Your task to perform on an android device: Go to sound settings Image 0: 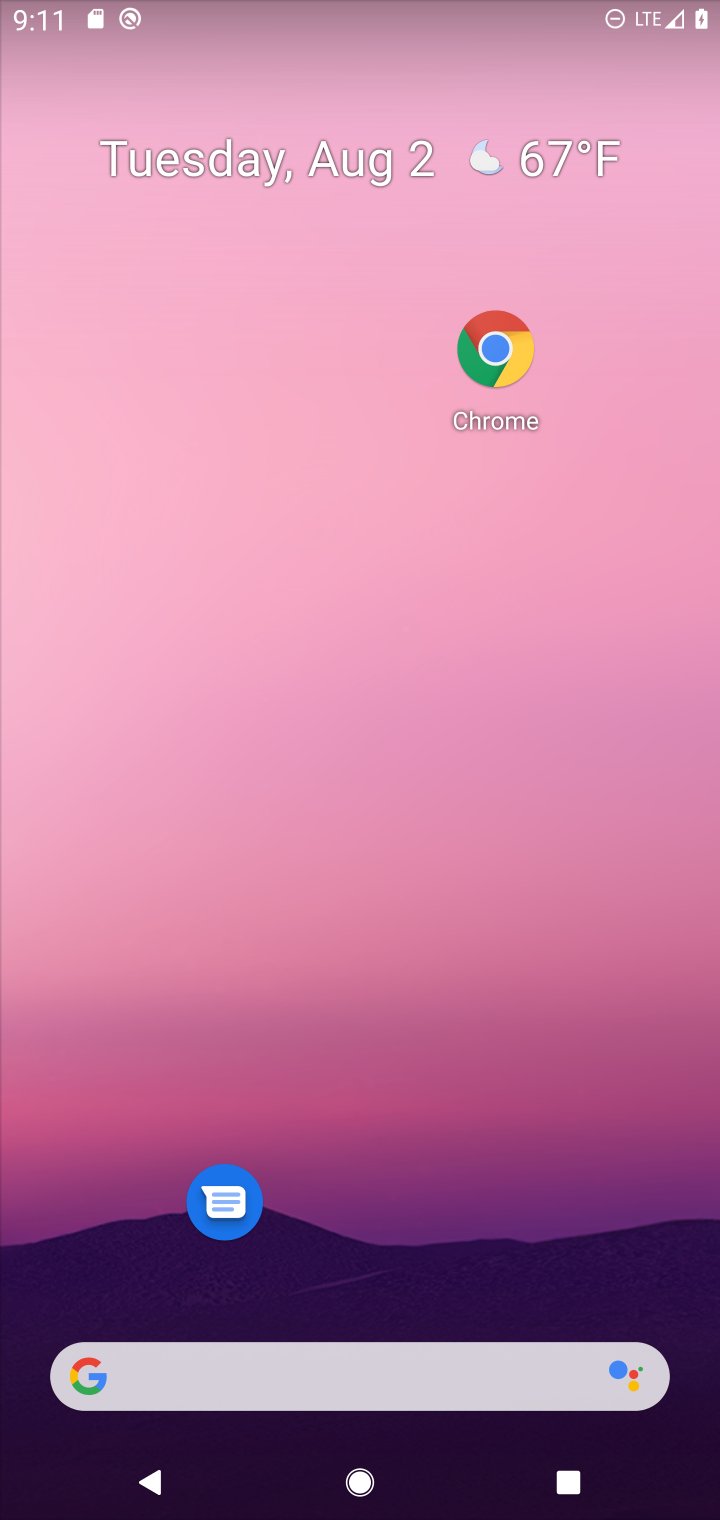
Step 0: drag from (371, 1303) to (390, 105)
Your task to perform on an android device: Go to sound settings Image 1: 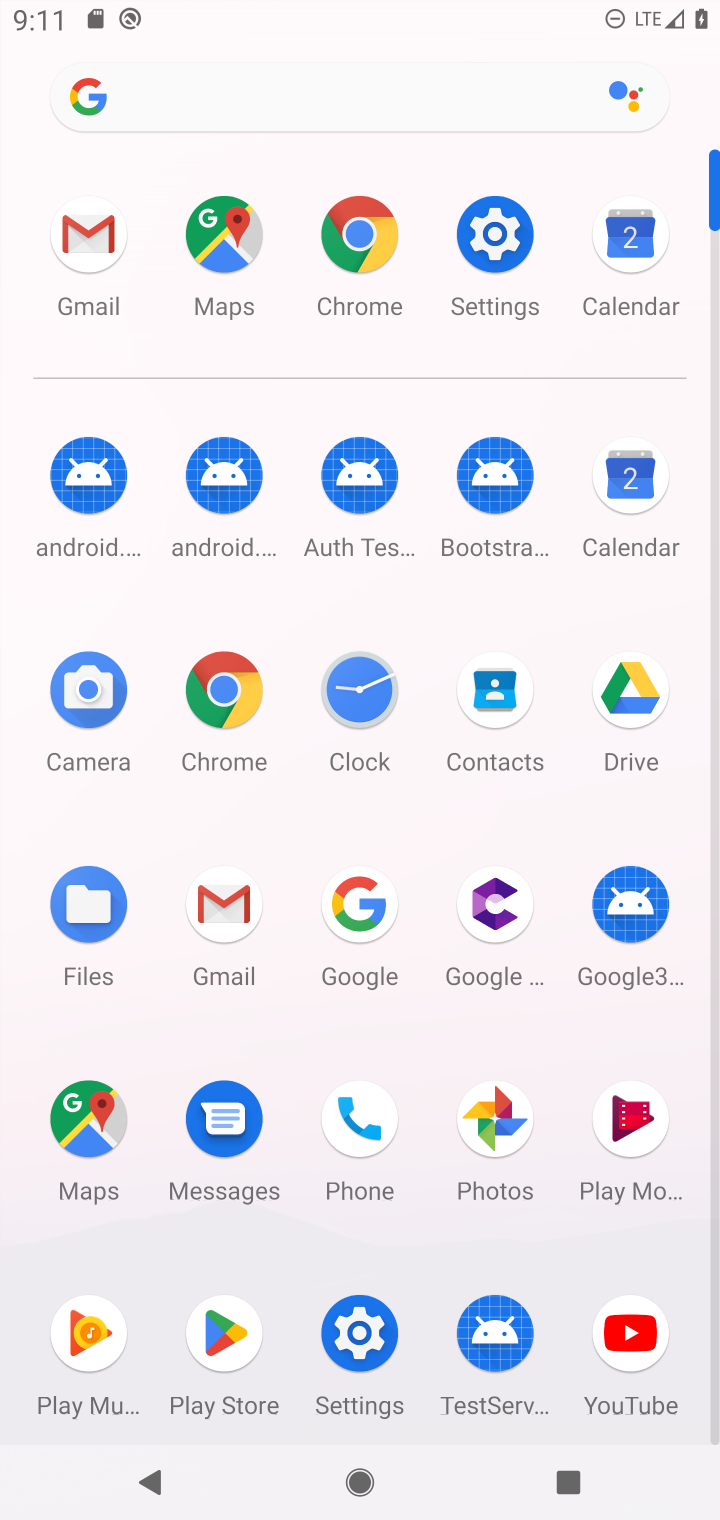
Step 1: click (490, 245)
Your task to perform on an android device: Go to sound settings Image 2: 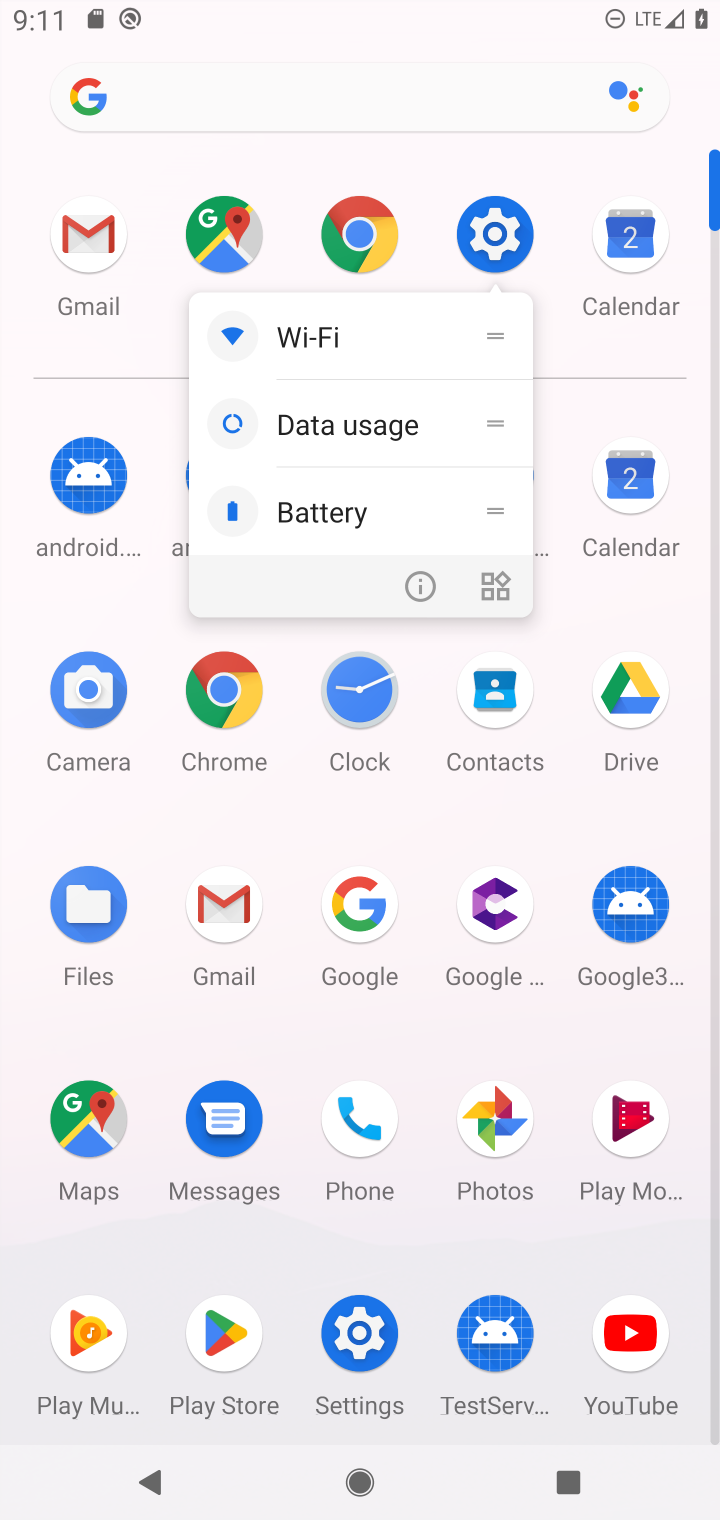
Step 2: click (489, 238)
Your task to perform on an android device: Go to sound settings Image 3: 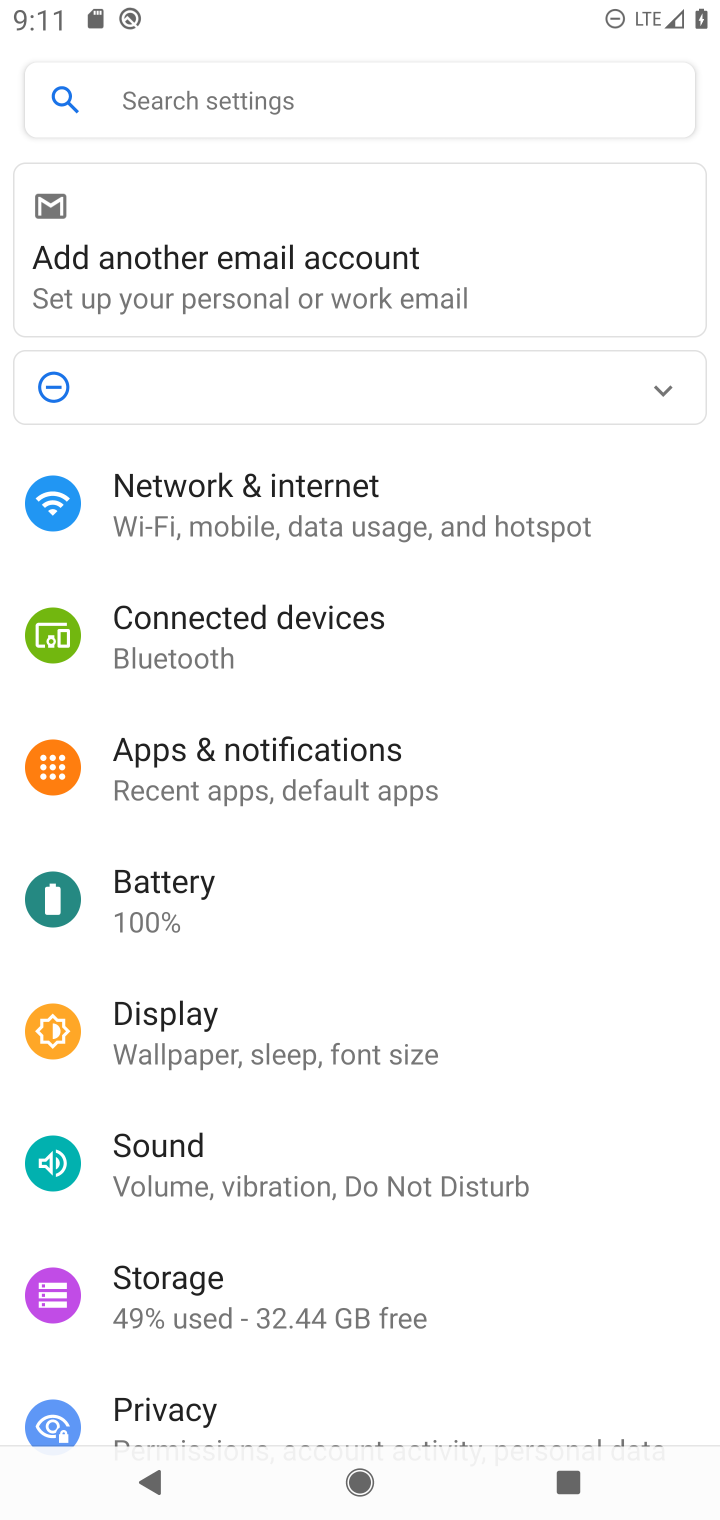
Step 3: click (208, 1178)
Your task to perform on an android device: Go to sound settings Image 4: 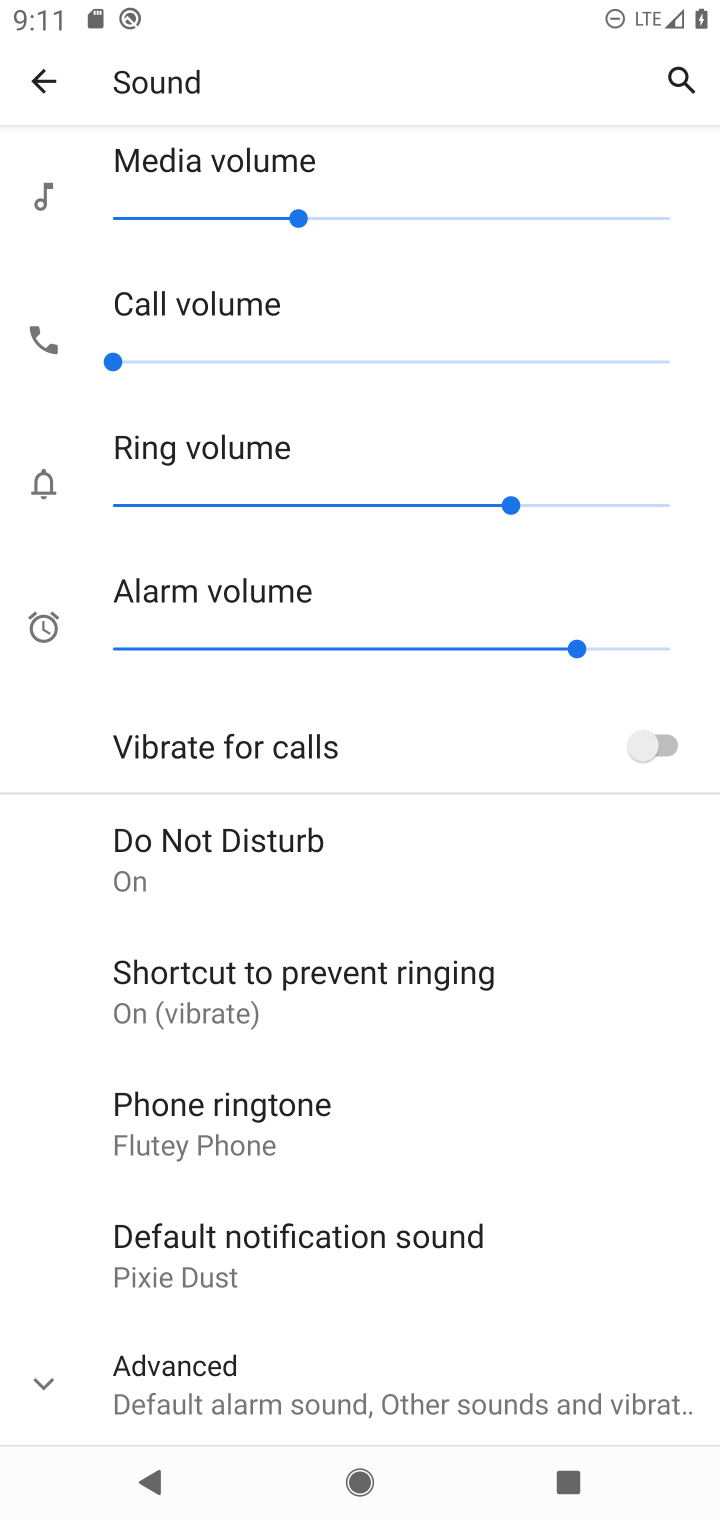
Step 4: task complete